Your task to perform on an android device: stop showing notifications on the lock screen Image 0: 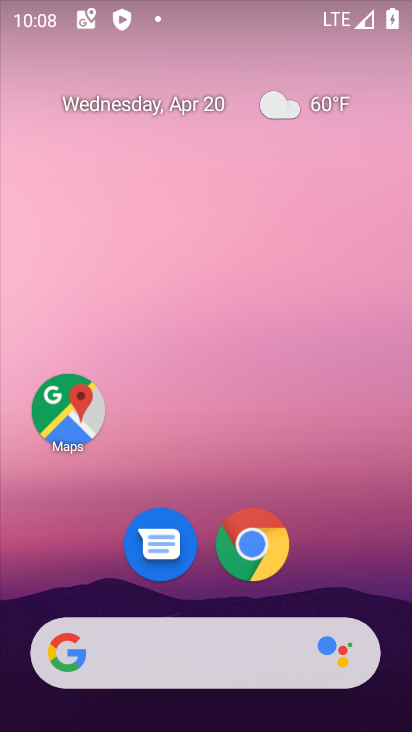
Step 0: drag from (334, 557) to (327, 419)
Your task to perform on an android device: stop showing notifications on the lock screen Image 1: 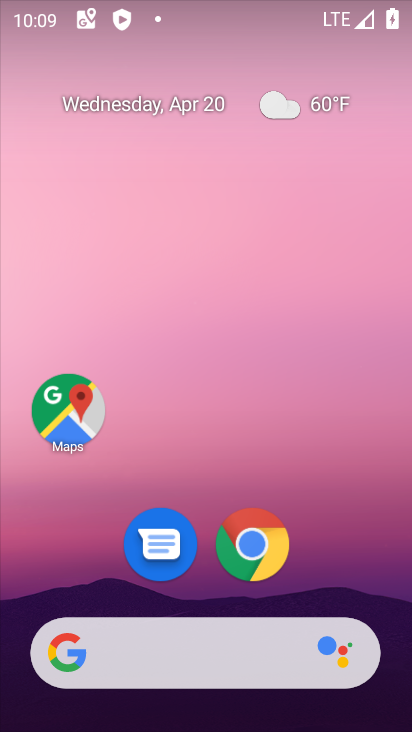
Step 1: drag from (358, 603) to (343, 369)
Your task to perform on an android device: stop showing notifications on the lock screen Image 2: 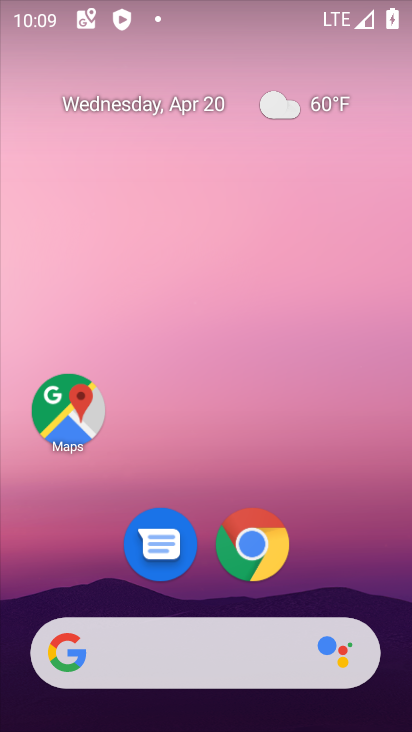
Step 2: drag from (342, 570) to (252, 195)
Your task to perform on an android device: stop showing notifications on the lock screen Image 3: 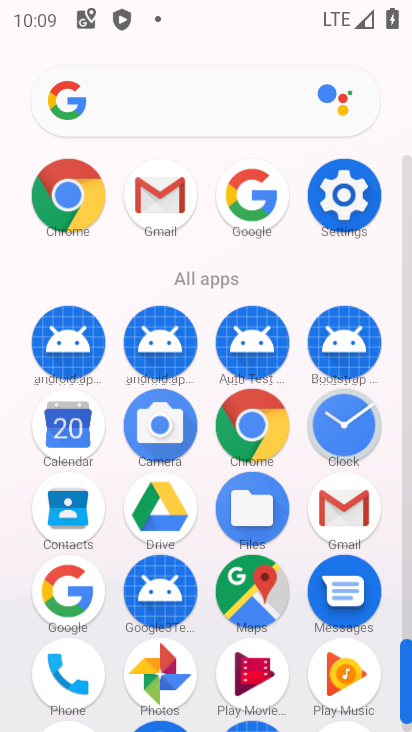
Step 3: click (343, 179)
Your task to perform on an android device: stop showing notifications on the lock screen Image 4: 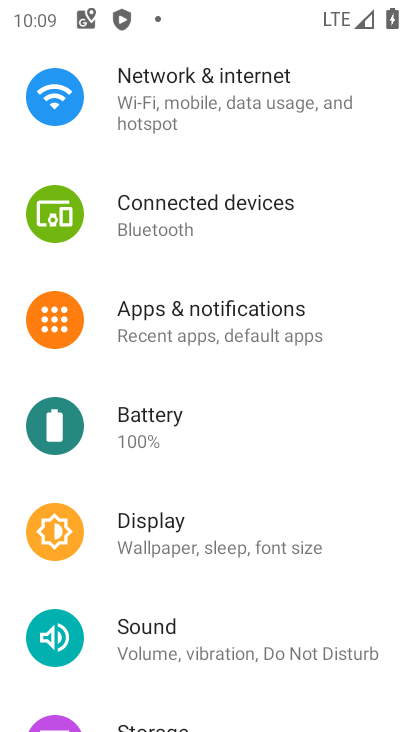
Step 4: click (304, 315)
Your task to perform on an android device: stop showing notifications on the lock screen Image 5: 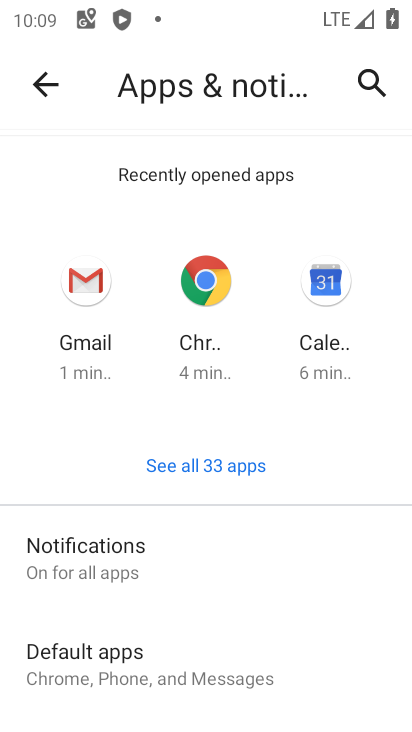
Step 5: click (261, 561)
Your task to perform on an android device: stop showing notifications on the lock screen Image 6: 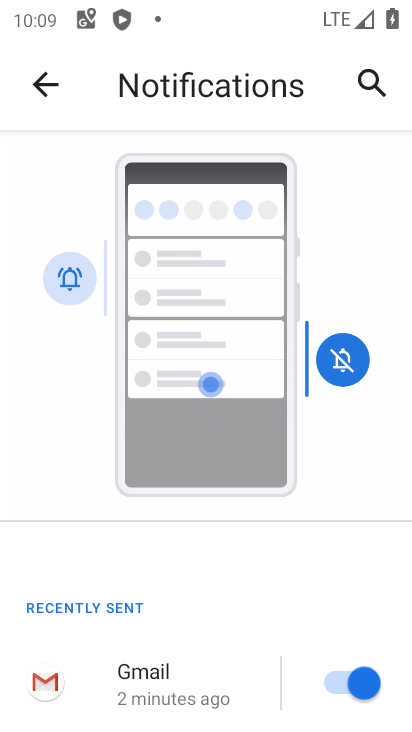
Step 6: drag from (262, 562) to (333, 210)
Your task to perform on an android device: stop showing notifications on the lock screen Image 7: 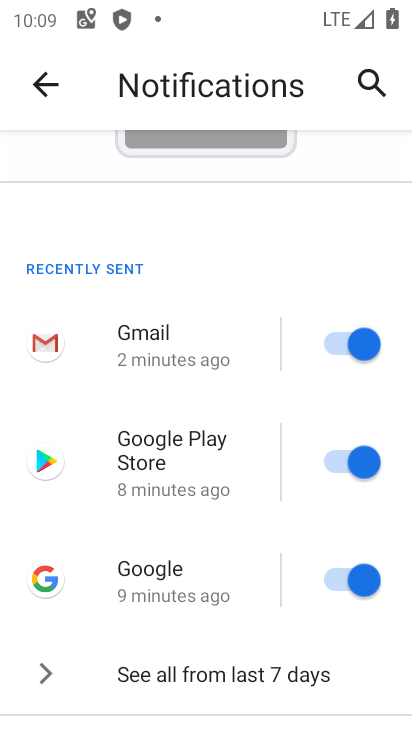
Step 7: drag from (281, 701) to (210, 220)
Your task to perform on an android device: stop showing notifications on the lock screen Image 8: 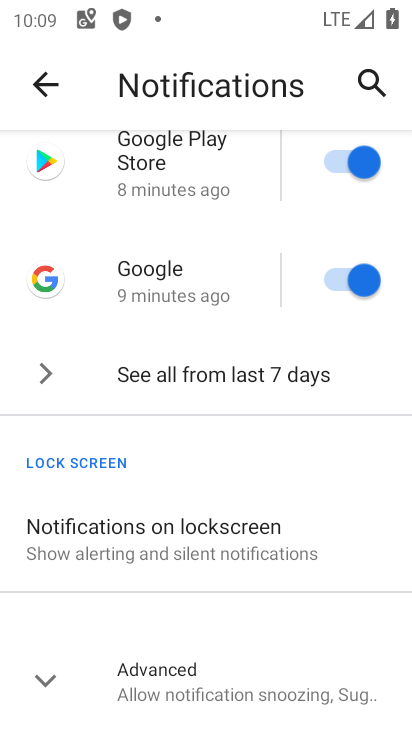
Step 8: click (237, 549)
Your task to perform on an android device: stop showing notifications on the lock screen Image 9: 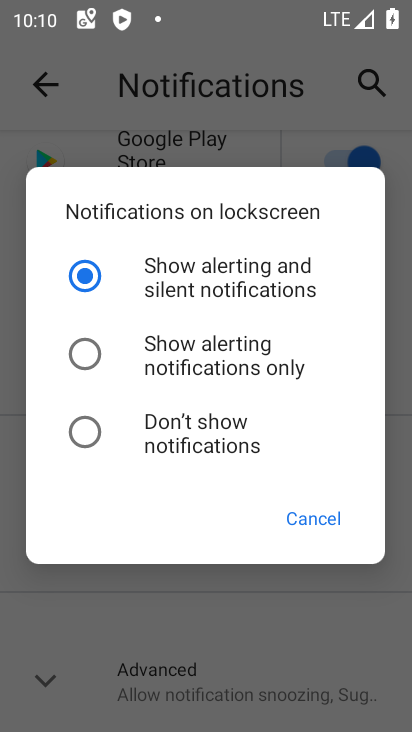
Step 9: click (223, 438)
Your task to perform on an android device: stop showing notifications on the lock screen Image 10: 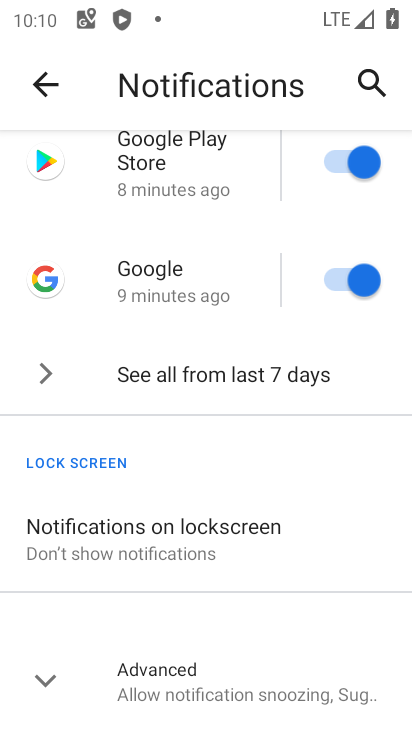
Step 10: task complete